Your task to perform on an android device: Is it going to rain tomorrow? Image 0: 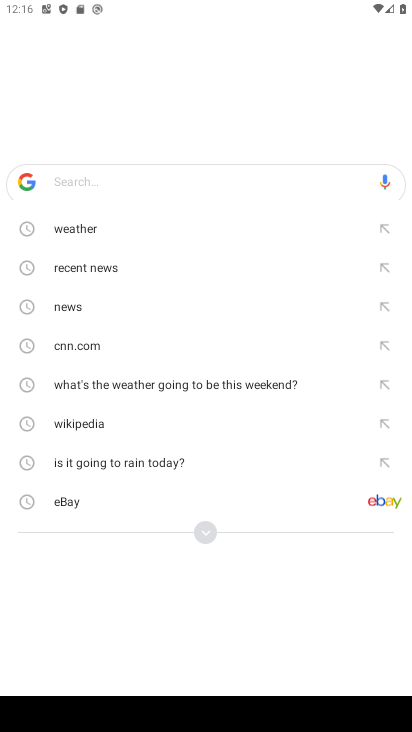
Step 0: click (96, 234)
Your task to perform on an android device: Is it going to rain tomorrow? Image 1: 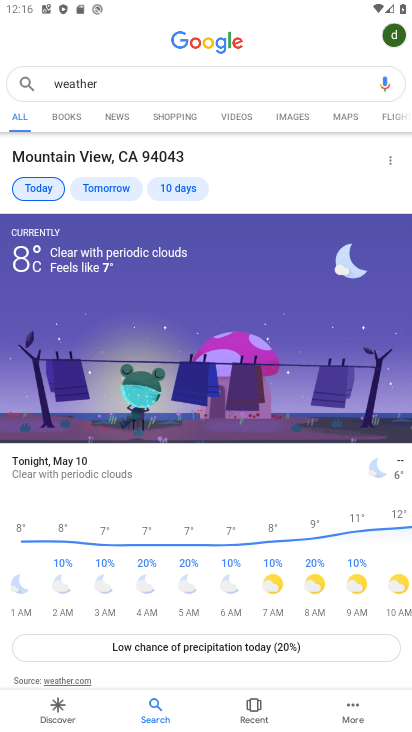
Step 1: click (94, 188)
Your task to perform on an android device: Is it going to rain tomorrow? Image 2: 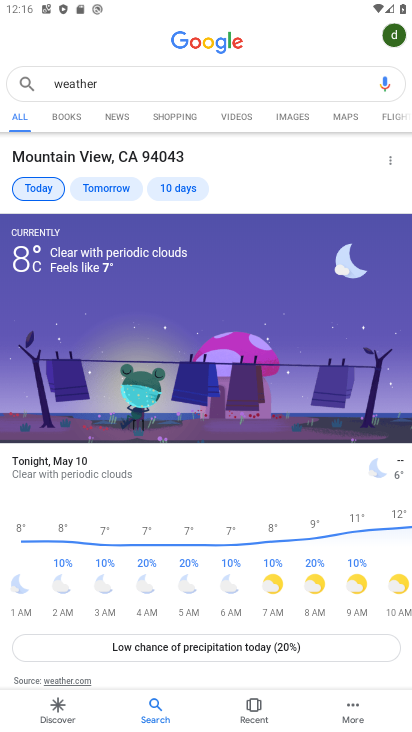
Step 2: click (94, 188)
Your task to perform on an android device: Is it going to rain tomorrow? Image 3: 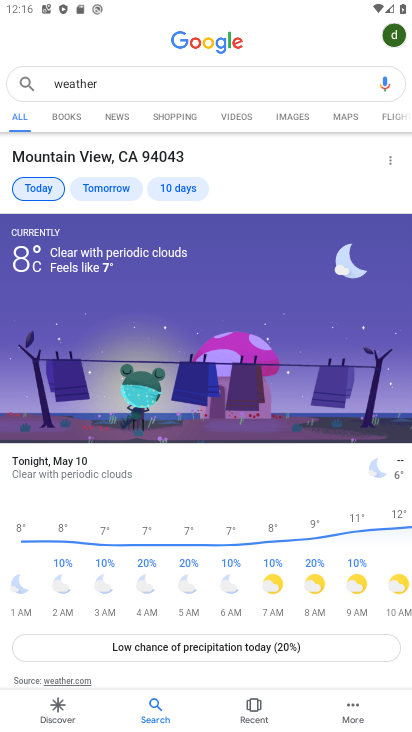
Step 3: task complete